Your task to perform on an android device: Go to Yahoo.com Image 0: 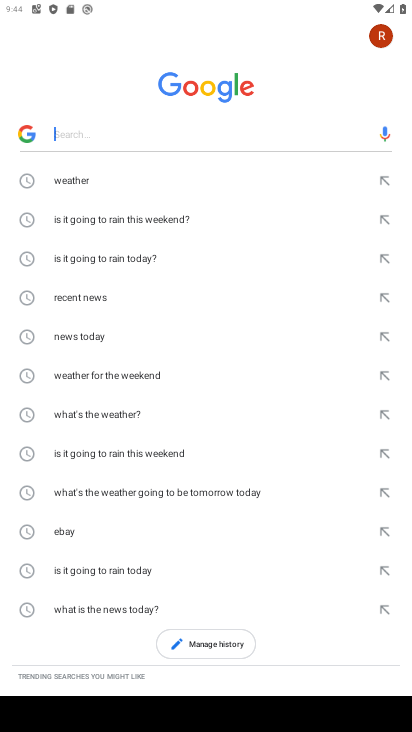
Step 0: press home button
Your task to perform on an android device: Go to Yahoo.com Image 1: 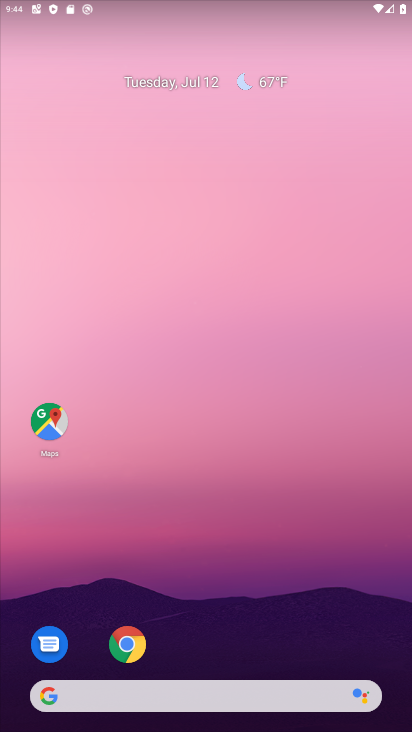
Step 1: drag from (164, 629) to (252, 62)
Your task to perform on an android device: Go to Yahoo.com Image 2: 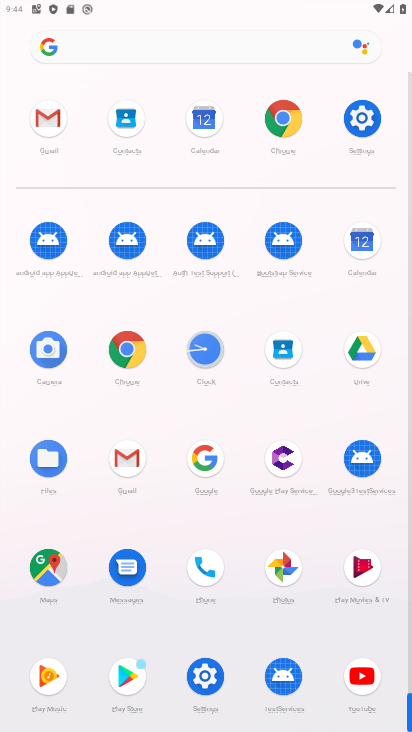
Step 2: click (143, 47)
Your task to perform on an android device: Go to Yahoo.com Image 3: 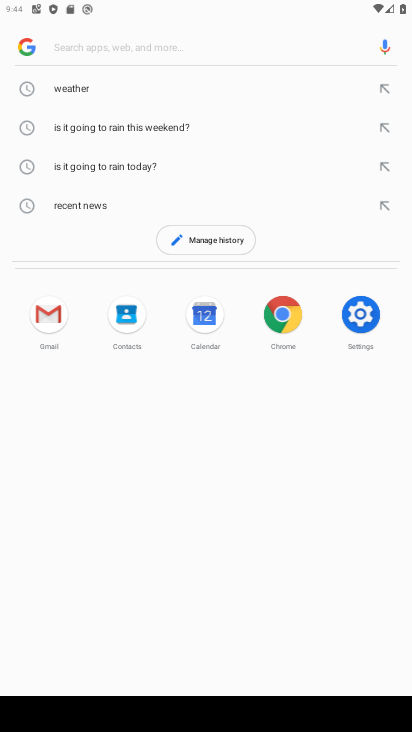
Step 3: click (71, 48)
Your task to perform on an android device: Go to Yahoo.com Image 4: 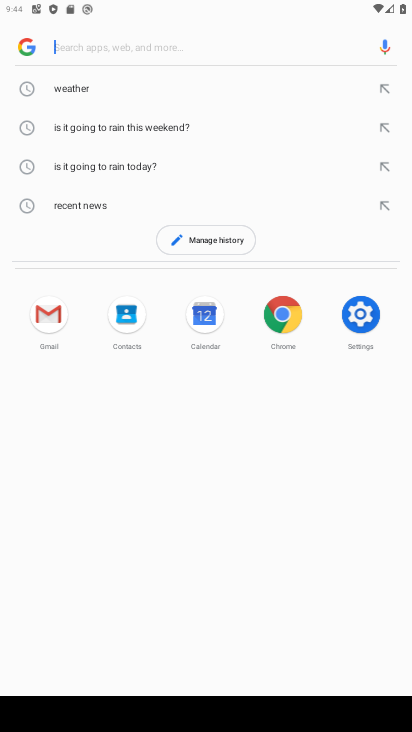
Step 4: type ""
Your task to perform on an android device: Go to Yahoo.com Image 5: 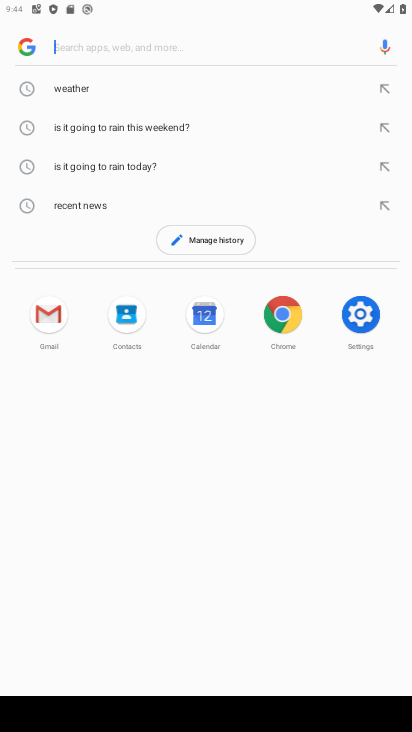
Step 5: type "Yahoo.com"
Your task to perform on an android device: Go to Yahoo.com Image 6: 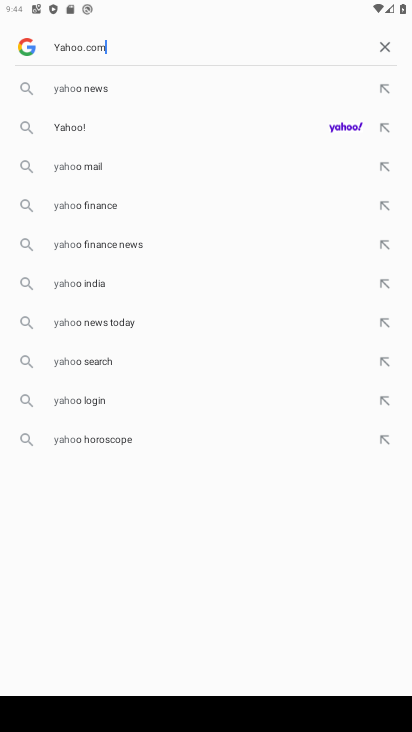
Step 6: type ""
Your task to perform on an android device: Go to Yahoo.com Image 7: 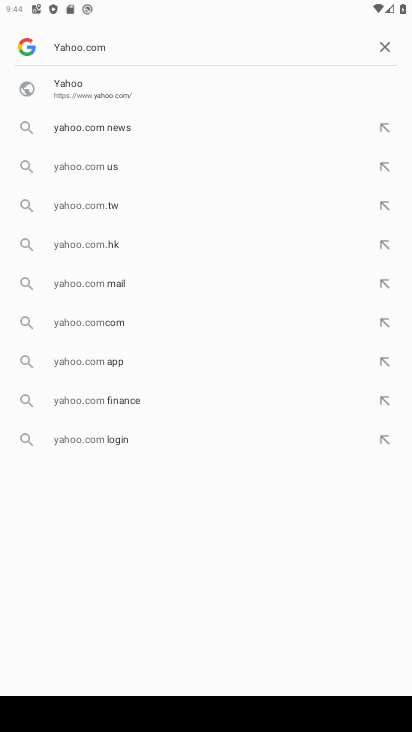
Step 7: click (99, 79)
Your task to perform on an android device: Go to Yahoo.com Image 8: 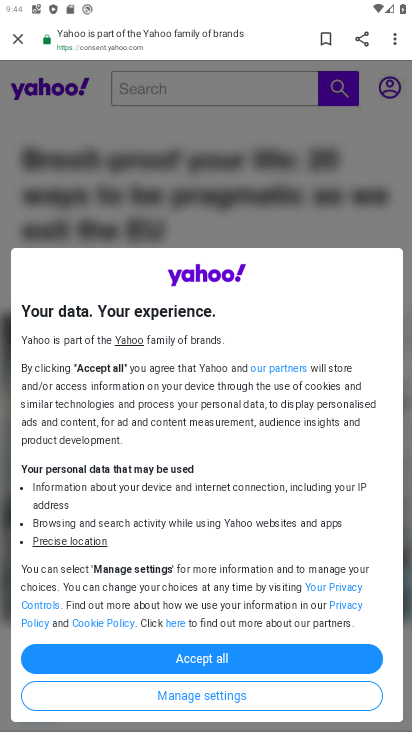
Step 8: task complete